Your task to perform on an android device: Open Reddit.com Image 0: 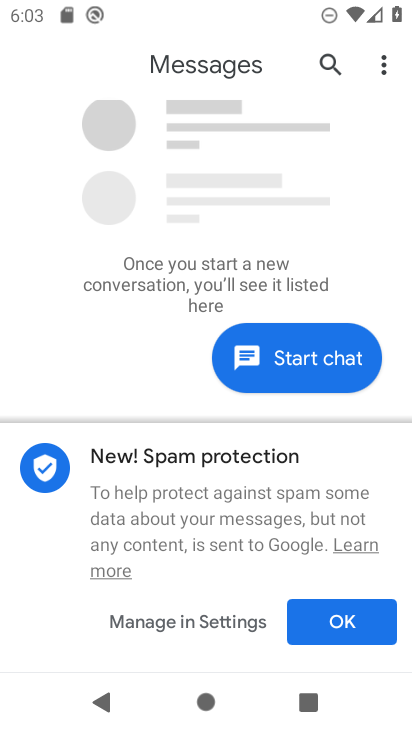
Step 0: press home button
Your task to perform on an android device: Open Reddit.com Image 1: 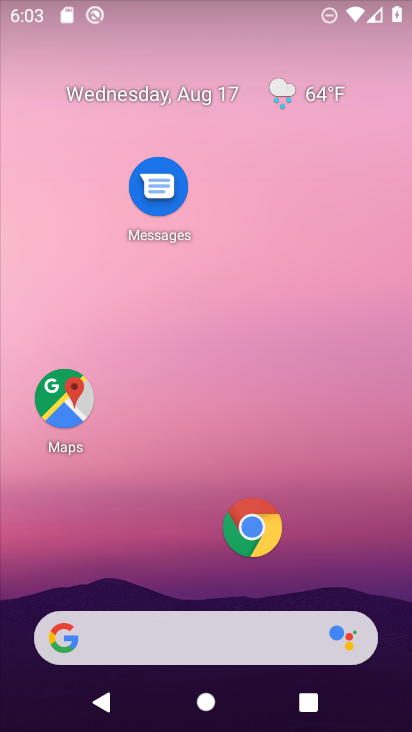
Step 1: drag from (138, 610) to (126, 196)
Your task to perform on an android device: Open Reddit.com Image 2: 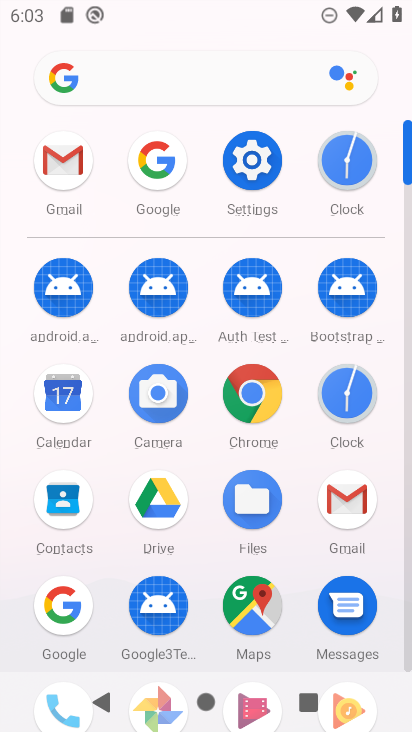
Step 2: click (54, 605)
Your task to perform on an android device: Open Reddit.com Image 3: 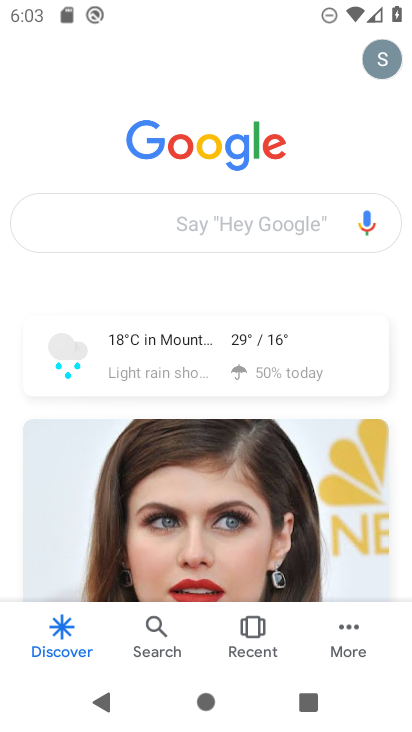
Step 3: click (124, 209)
Your task to perform on an android device: Open Reddit.com Image 4: 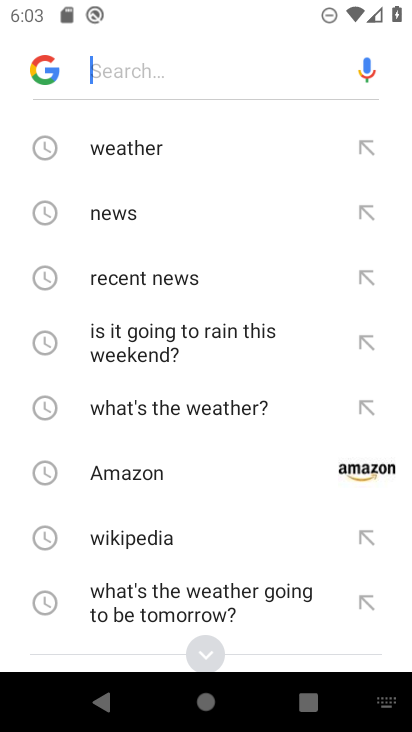
Step 4: drag from (172, 580) to (155, 330)
Your task to perform on an android device: Open Reddit.com Image 5: 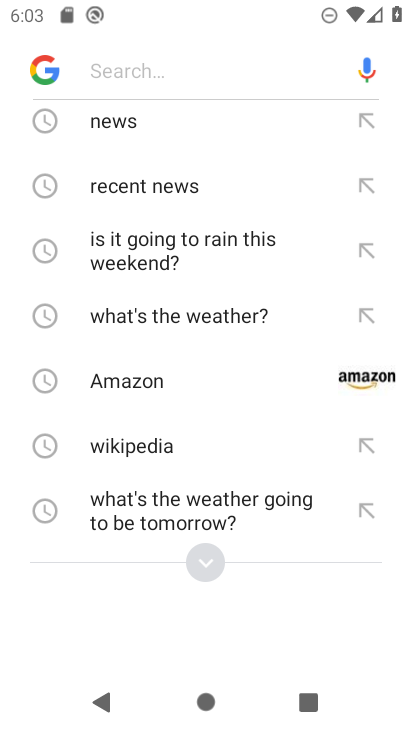
Step 5: click (212, 556)
Your task to perform on an android device: Open Reddit.com Image 6: 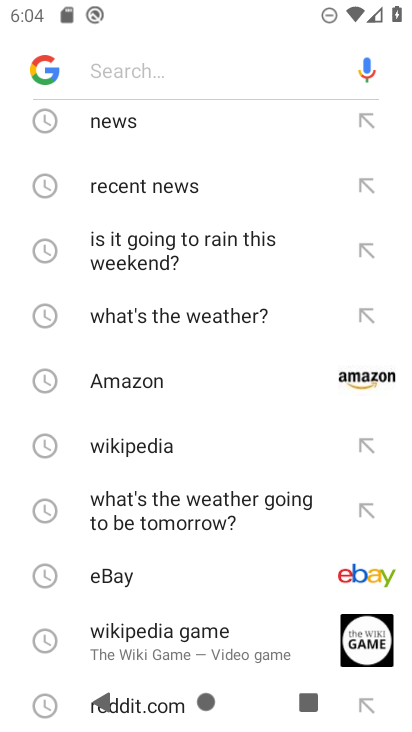
Step 6: drag from (177, 612) to (146, 387)
Your task to perform on an android device: Open Reddit.com Image 7: 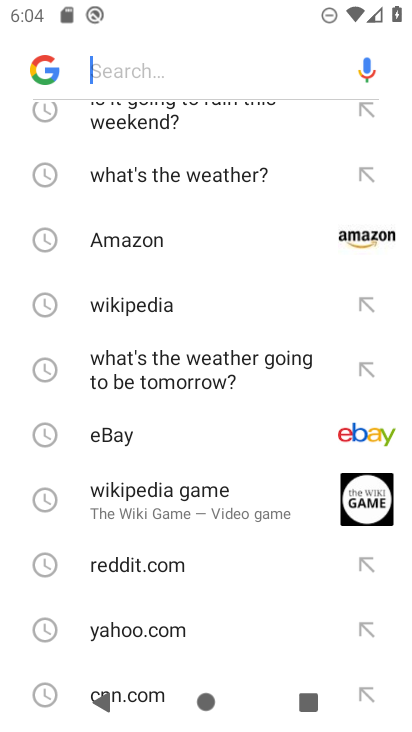
Step 7: click (106, 564)
Your task to perform on an android device: Open Reddit.com Image 8: 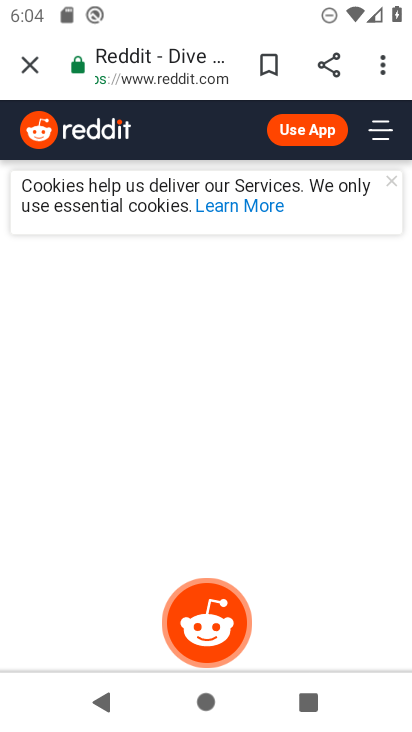
Step 8: task complete